Your task to perform on an android device: remove spam from my inbox in the gmail app Image 0: 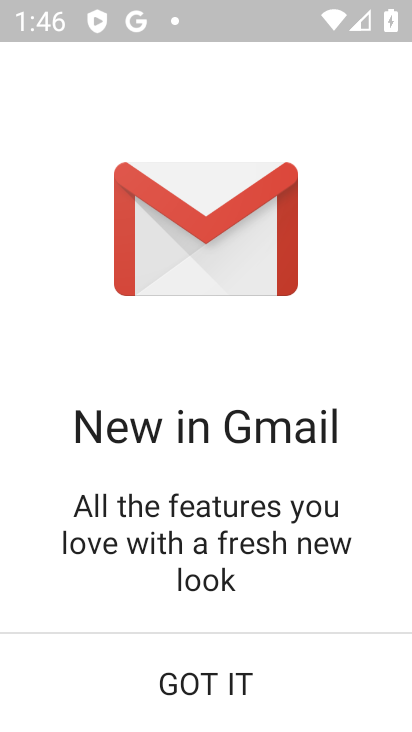
Step 0: press home button
Your task to perform on an android device: remove spam from my inbox in the gmail app Image 1: 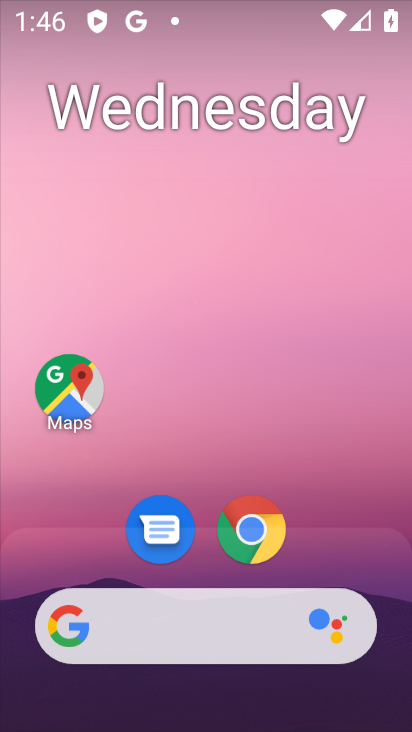
Step 1: drag from (355, 544) to (379, 180)
Your task to perform on an android device: remove spam from my inbox in the gmail app Image 2: 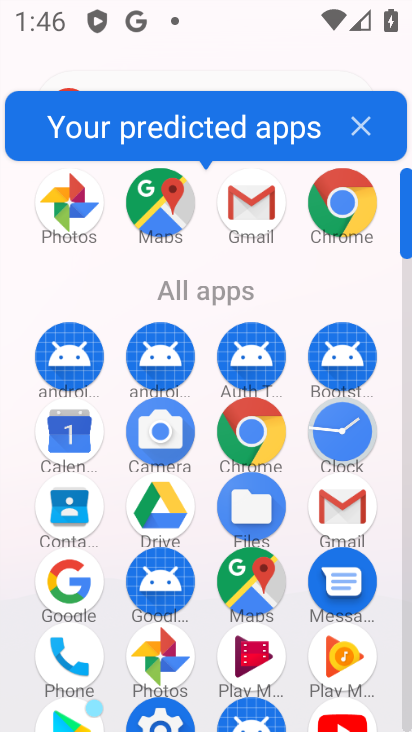
Step 2: click (345, 508)
Your task to perform on an android device: remove spam from my inbox in the gmail app Image 3: 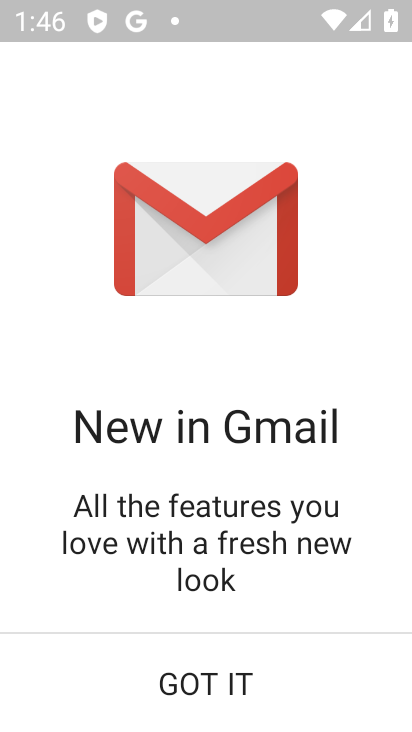
Step 3: click (238, 663)
Your task to perform on an android device: remove spam from my inbox in the gmail app Image 4: 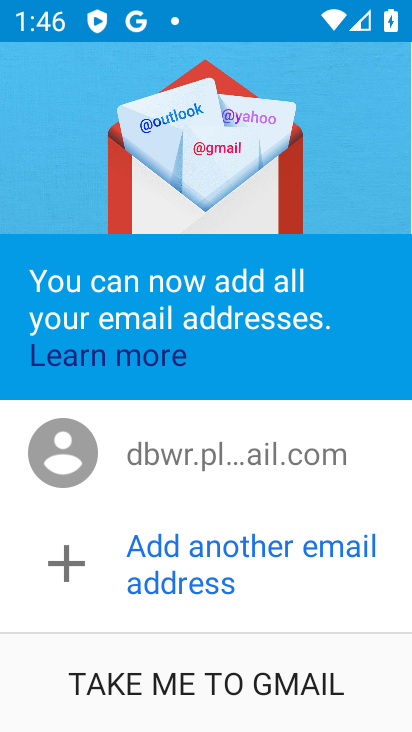
Step 4: click (238, 663)
Your task to perform on an android device: remove spam from my inbox in the gmail app Image 5: 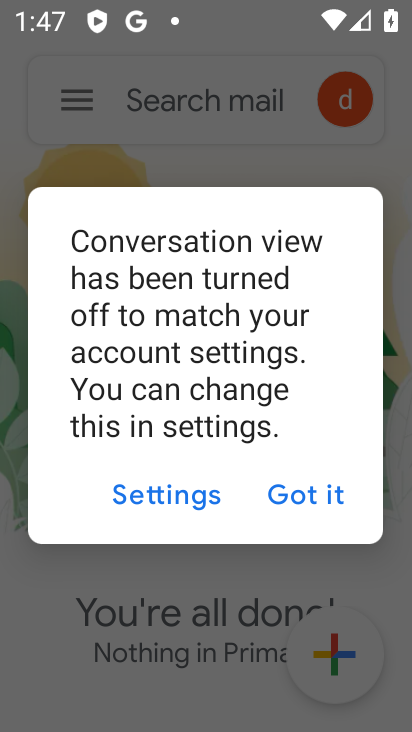
Step 5: click (303, 485)
Your task to perform on an android device: remove spam from my inbox in the gmail app Image 6: 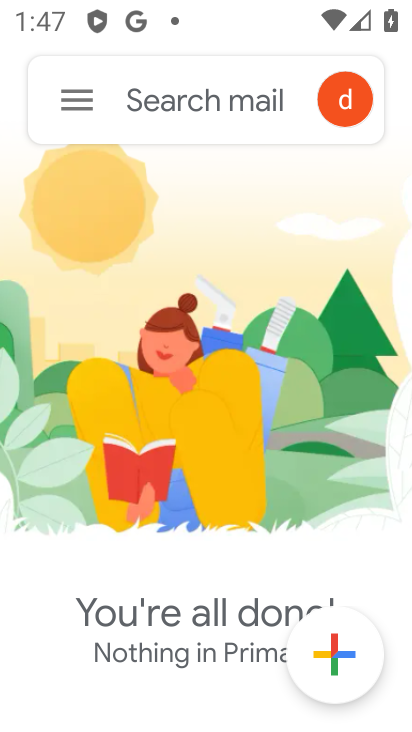
Step 6: click (98, 123)
Your task to perform on an android device: remove spam from my inbox in the gmail app Image 7: 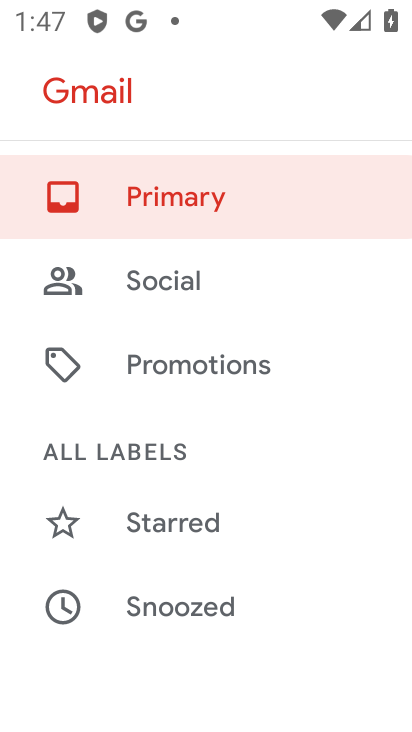
Step 7: drag from (198, 469) to (199, 142)
Your task to perform on an android device: remove spam from my inbox in the gmail app Image 8: 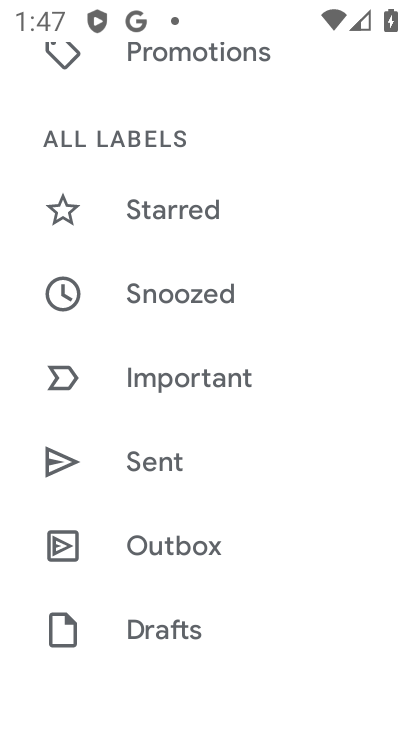
Step 8: drag from (158, 531) to (163, 359)
Your task to perform on an android device: remove spam from my inbox in the gmail app Image 9: 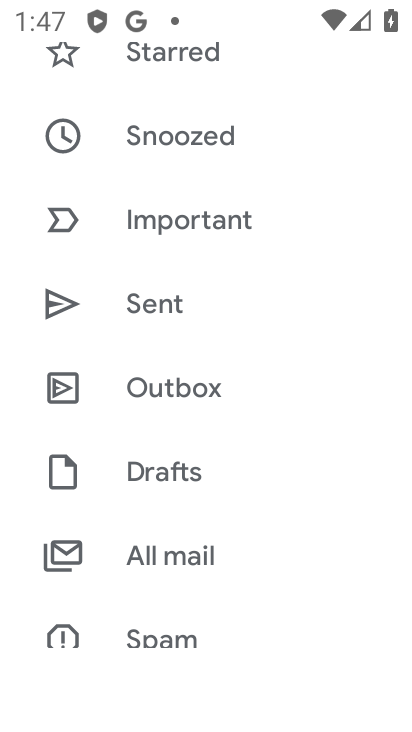
Step 9: drag from (182, 547) to (180, 339)
Your task to perform on an android device: remove spam from my inbox in the gmail app Image 10: 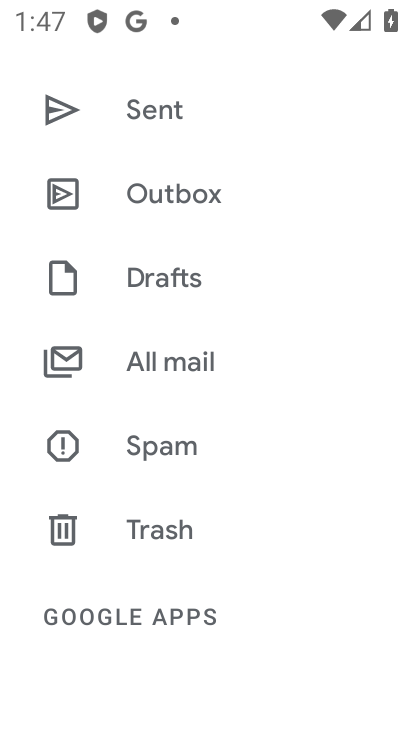
Step 10: click (196, 442)
Your task to perform on an android device: remove spam from my inbox in the gmail app Image 11: 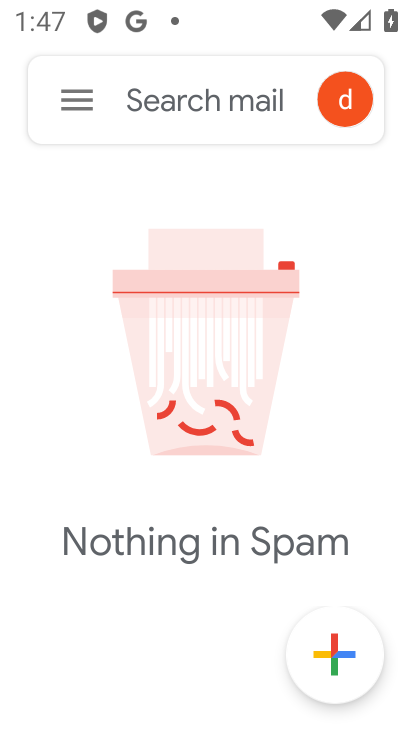
Step 11: task complete